Your task to perform on an android device: Add macbook to the cart on target.com Image 0: 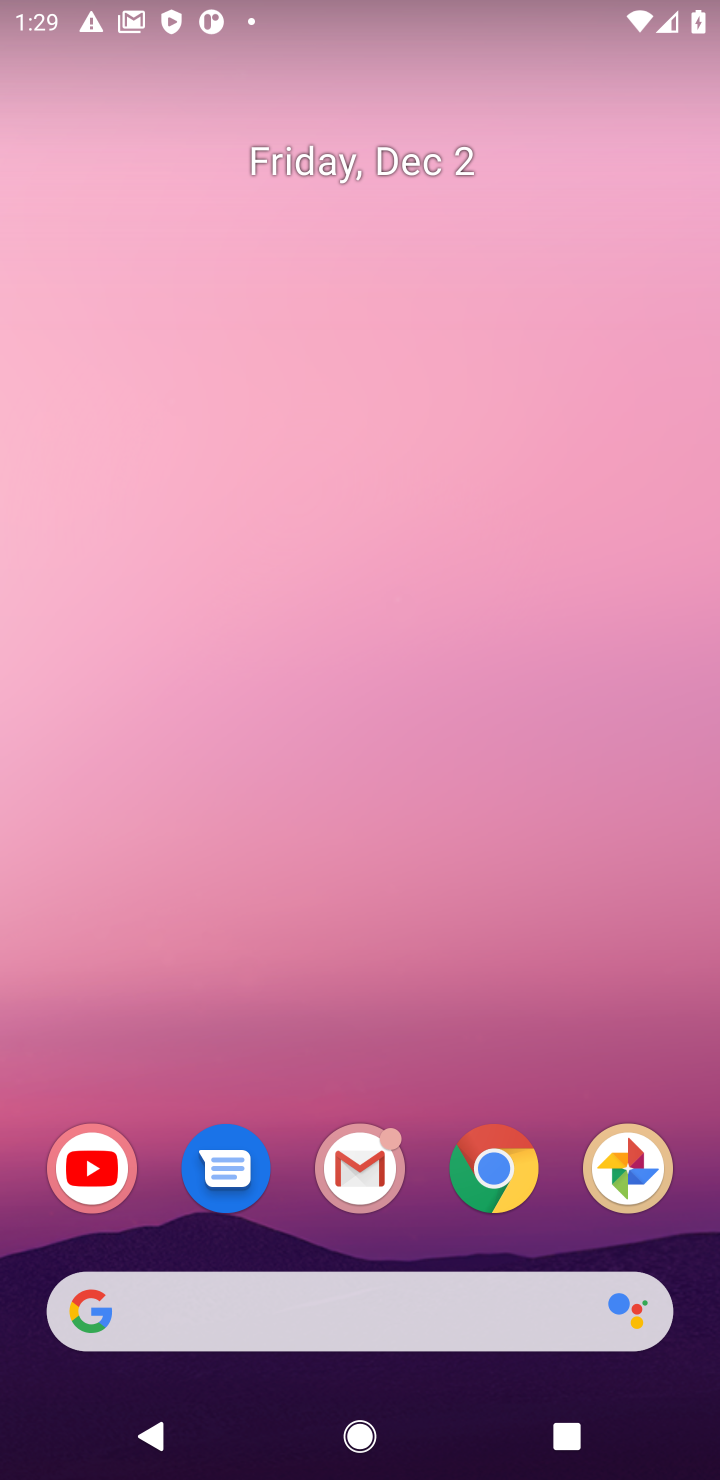
Step 0: click (499, 1180)
Your task to perform on an android device: Add macbook to the cart on target.com Image 1: 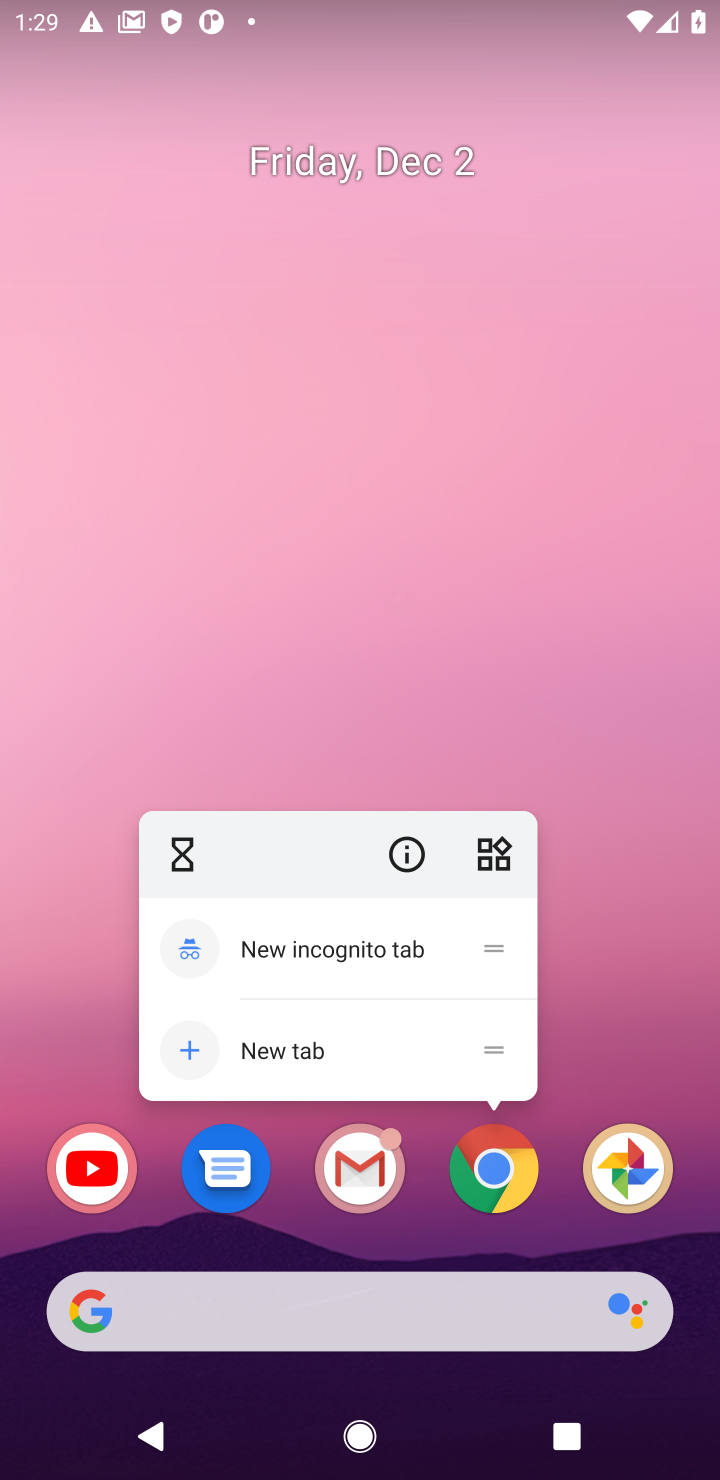
Step 1: click (499, 1180)
Your task to perform on an android device: Add macbook to the cart on target.com Image 2: 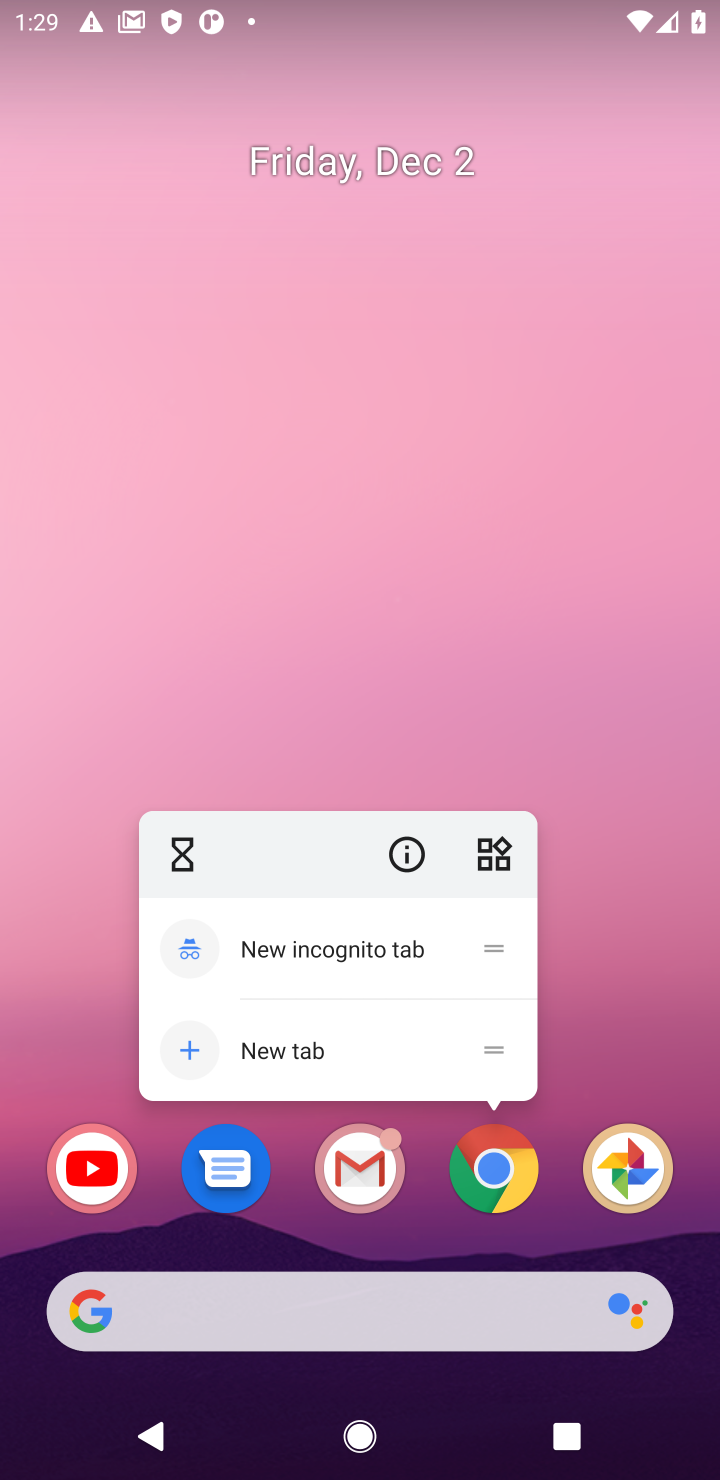
Step 2: click (499, 1180)
Your task to perform on an android device: Add macbook to the cart on target.com Image 3: 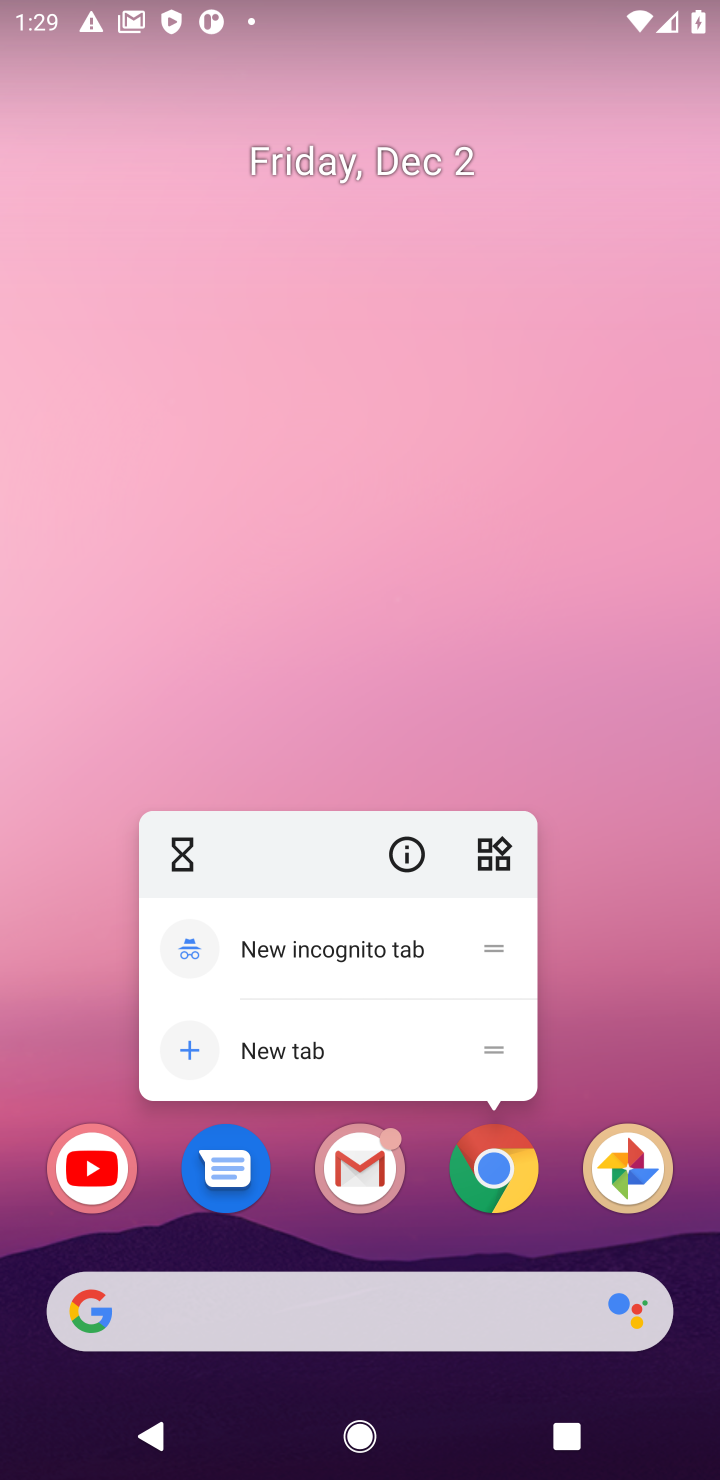
Step 3: click (662, 925)
Your task to perform on an android device: Add macbook to the cart on target.com Image 4: 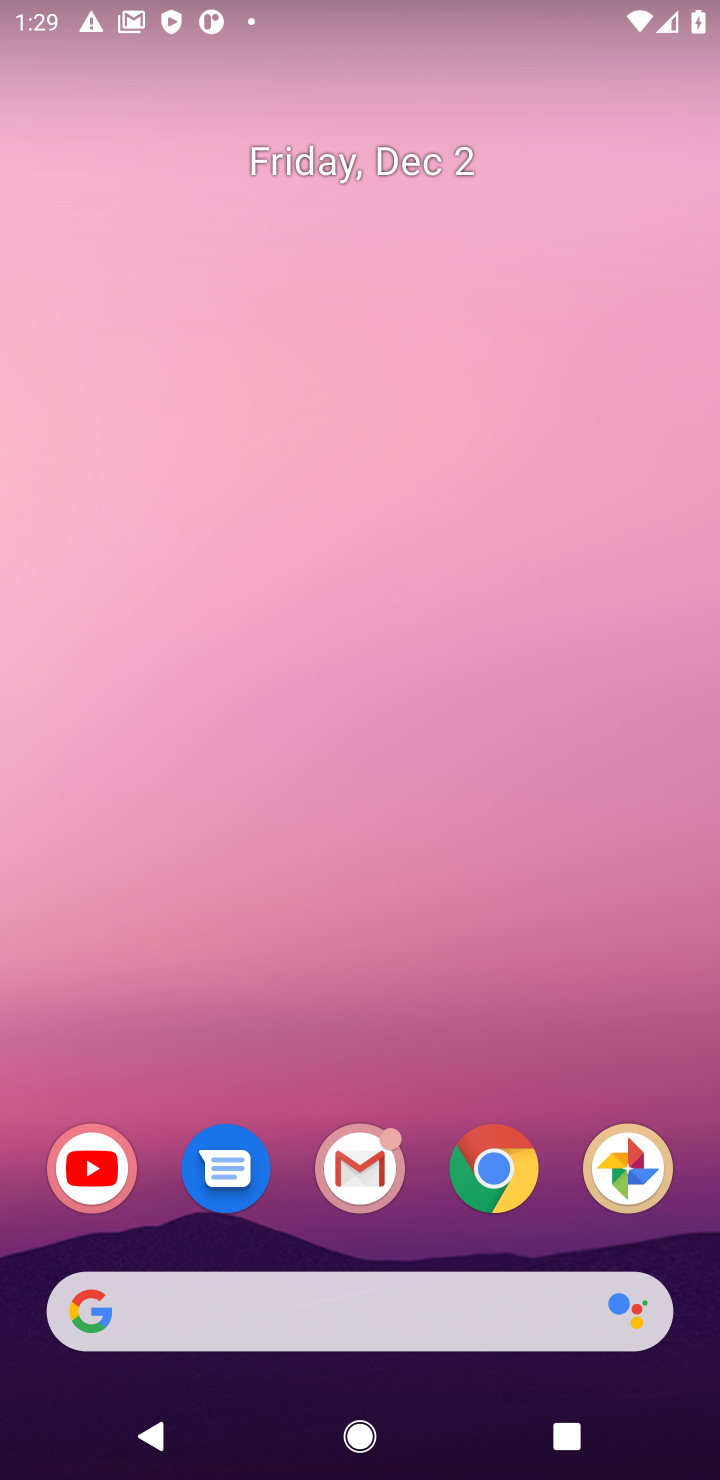
Step 4: click (495, 1176)
Your task to perform on an android device: Add macbook to the cart on target.com Image 5: 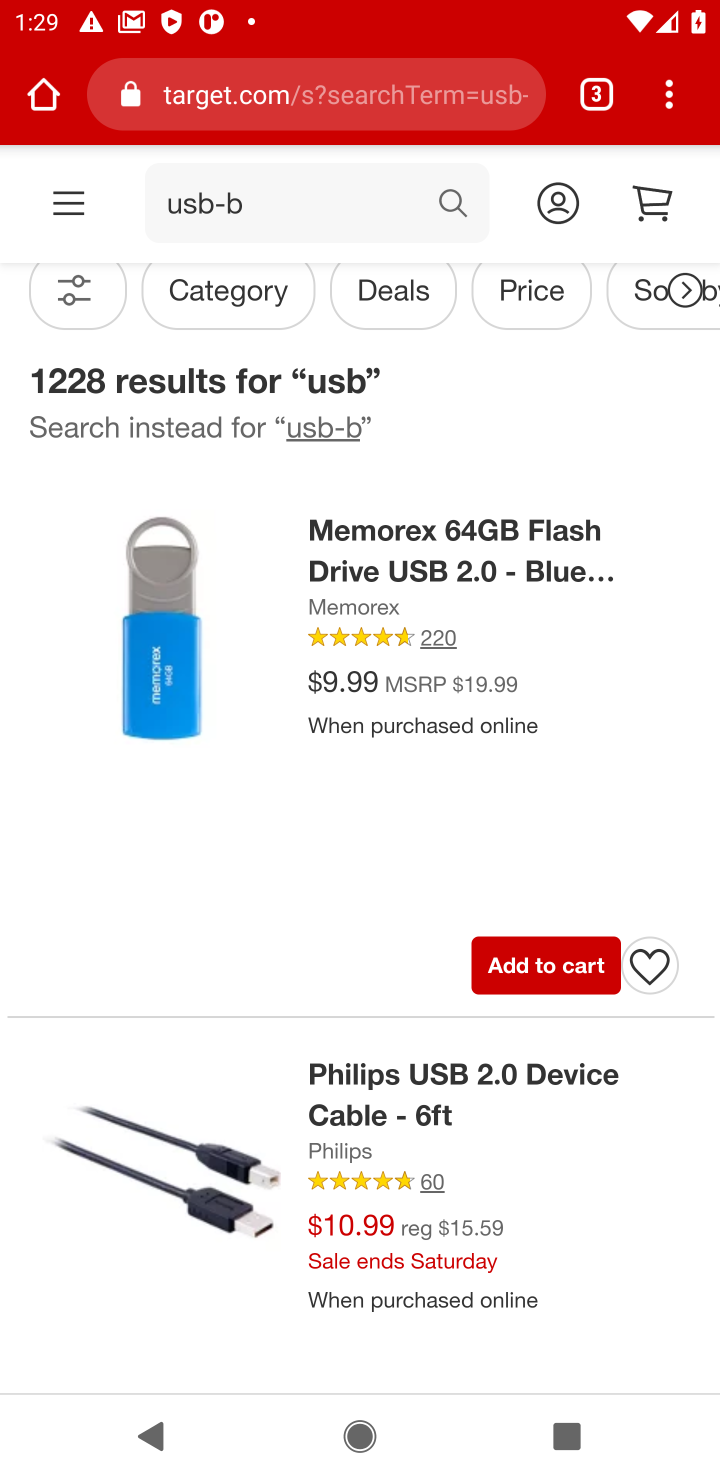
Step 5: click (267, 198)
Your task to perform on an android device: Add macbook to the cart on target.com Image 6: 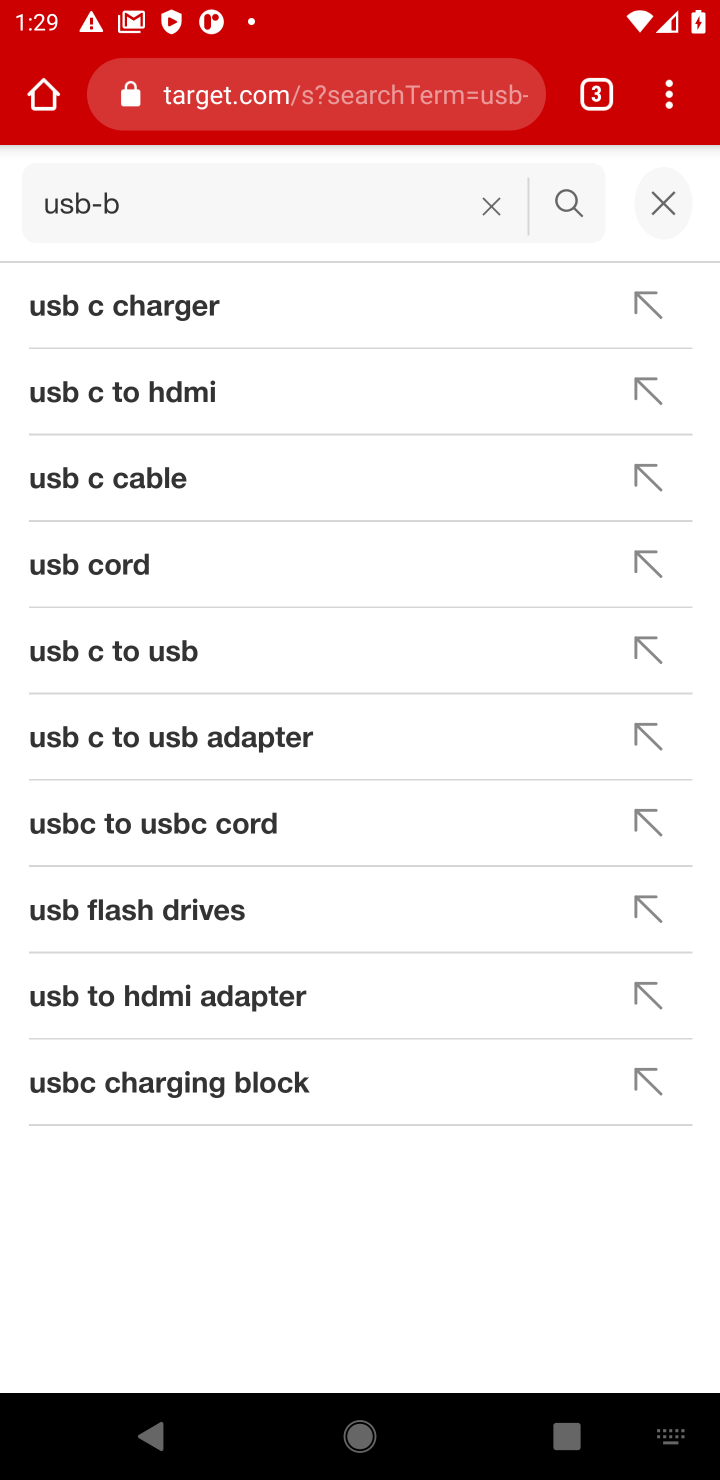
Step 6: click (493, 195)
Your task to perform on an android device: Add macbook to the cart on target.com Image 7: 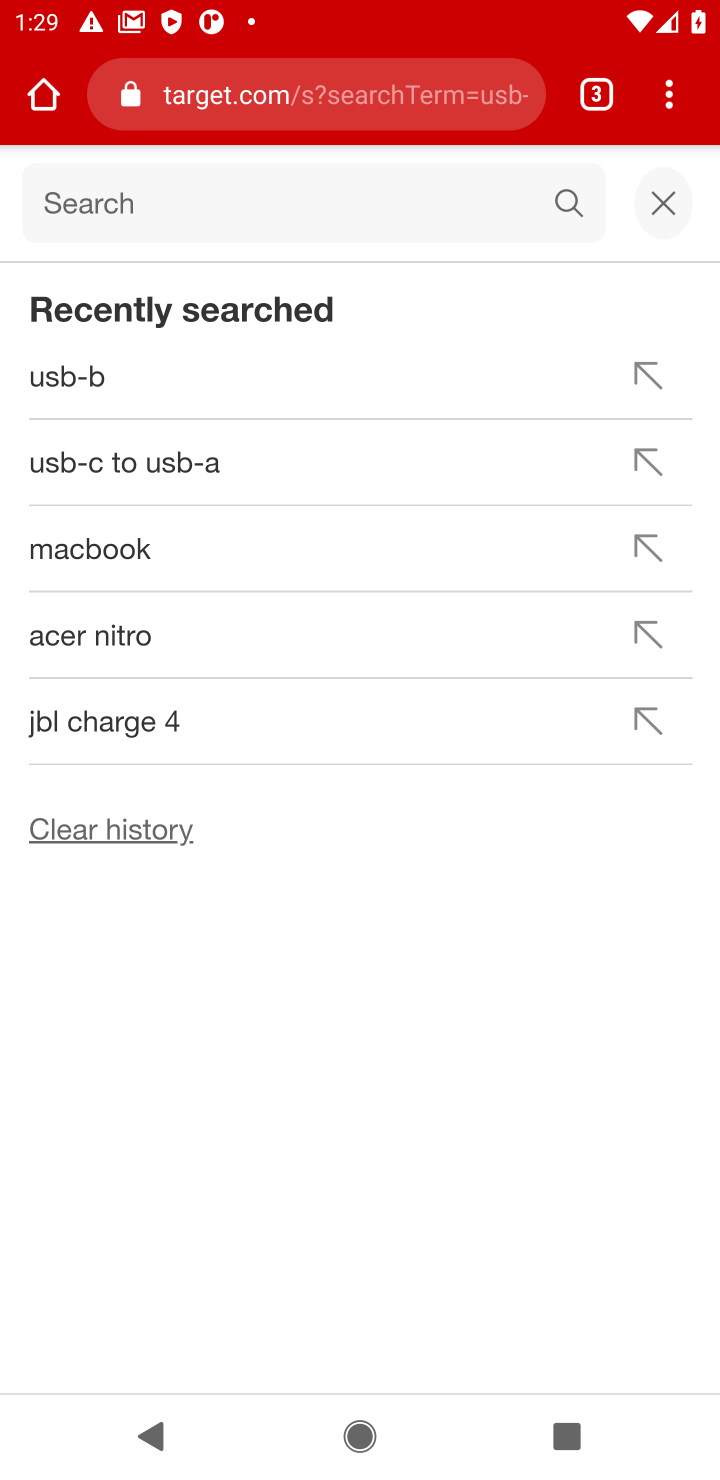
Step 7: click (137, 195)
Your task to perform on an android device: Add macbook to the cart on target.com Image 8: 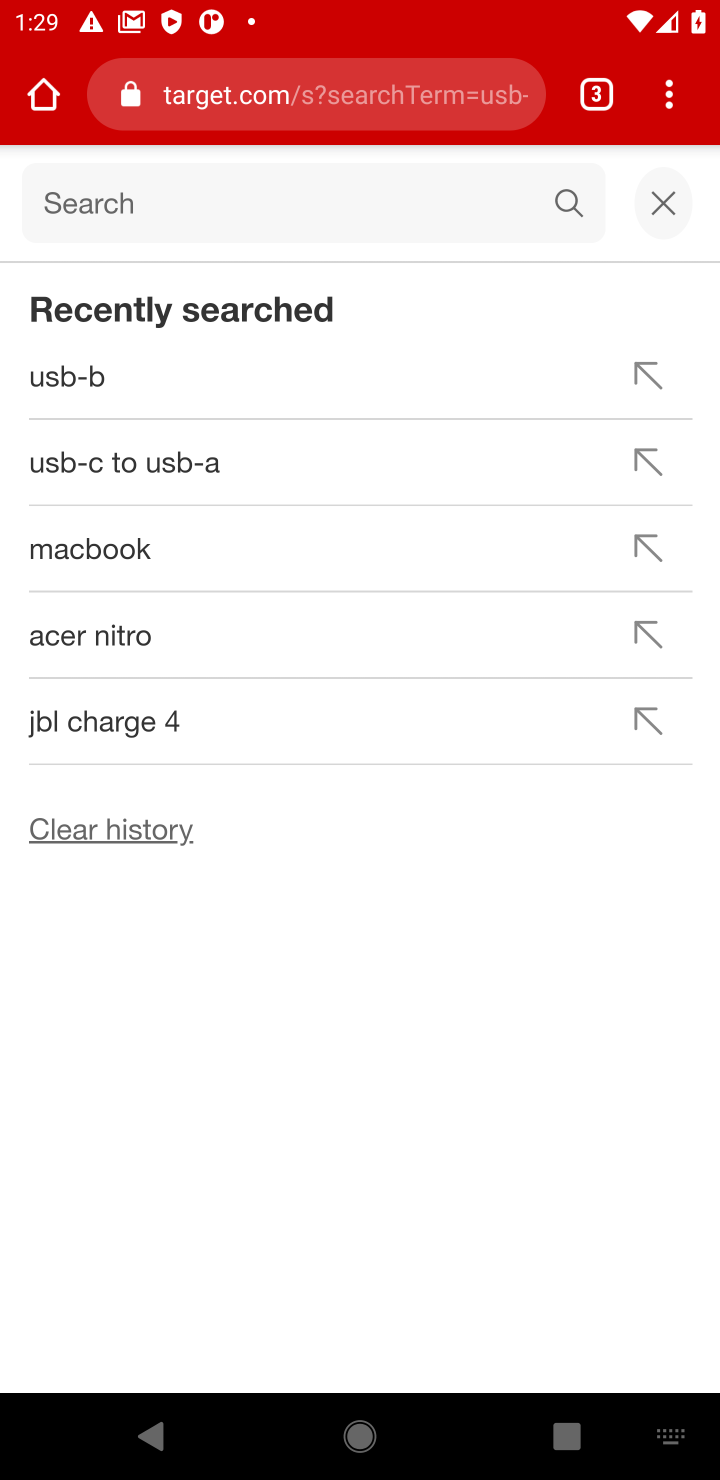
Step 8: type "macbook"
Your task to perform on an android device: Add macbook to the cart on target.com Image 9: 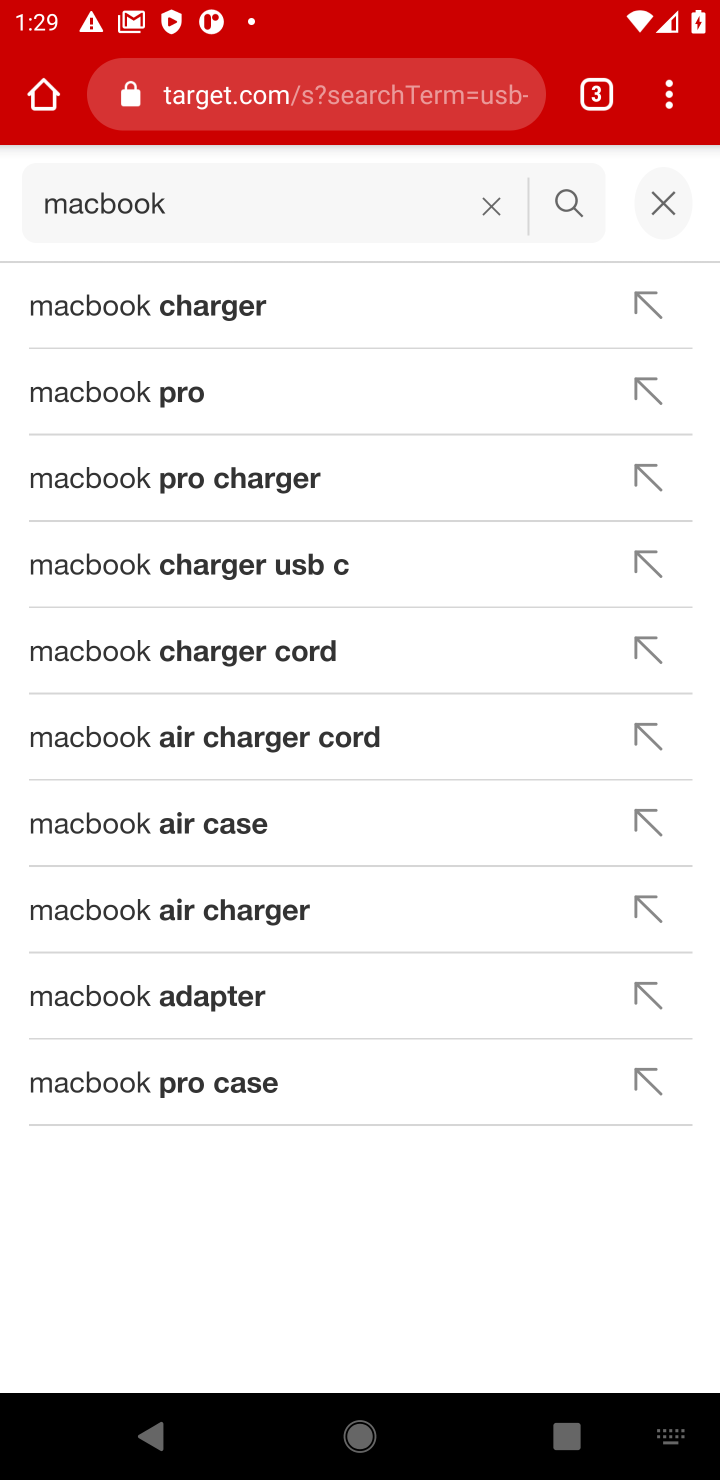
Step 9: click (573, 188)
Your task to perform on an android device: Add macbook to the cart on target.com Image 10: 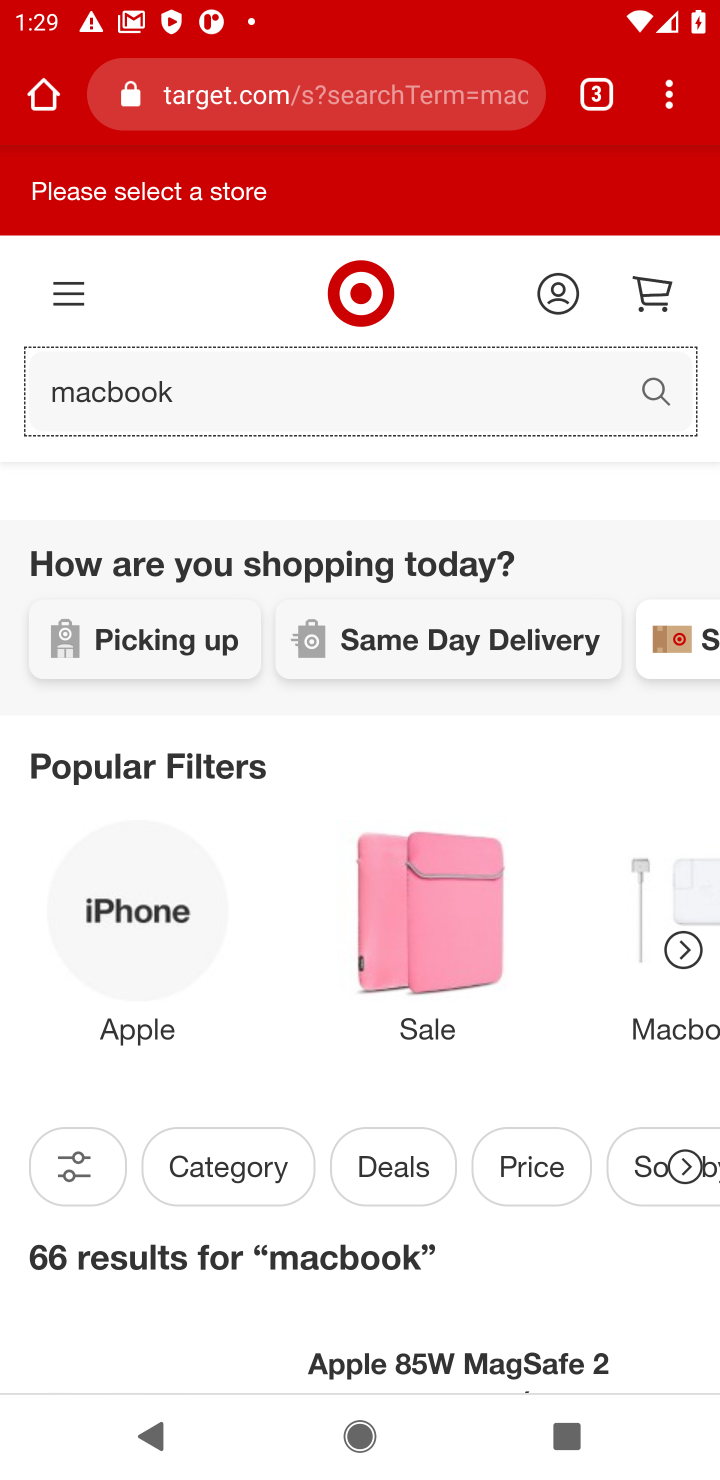
Step 10: drag from (232, 859) to (247, 321)
Your task to perform on an android device: Add macbook to the cart on target.com Image 11: 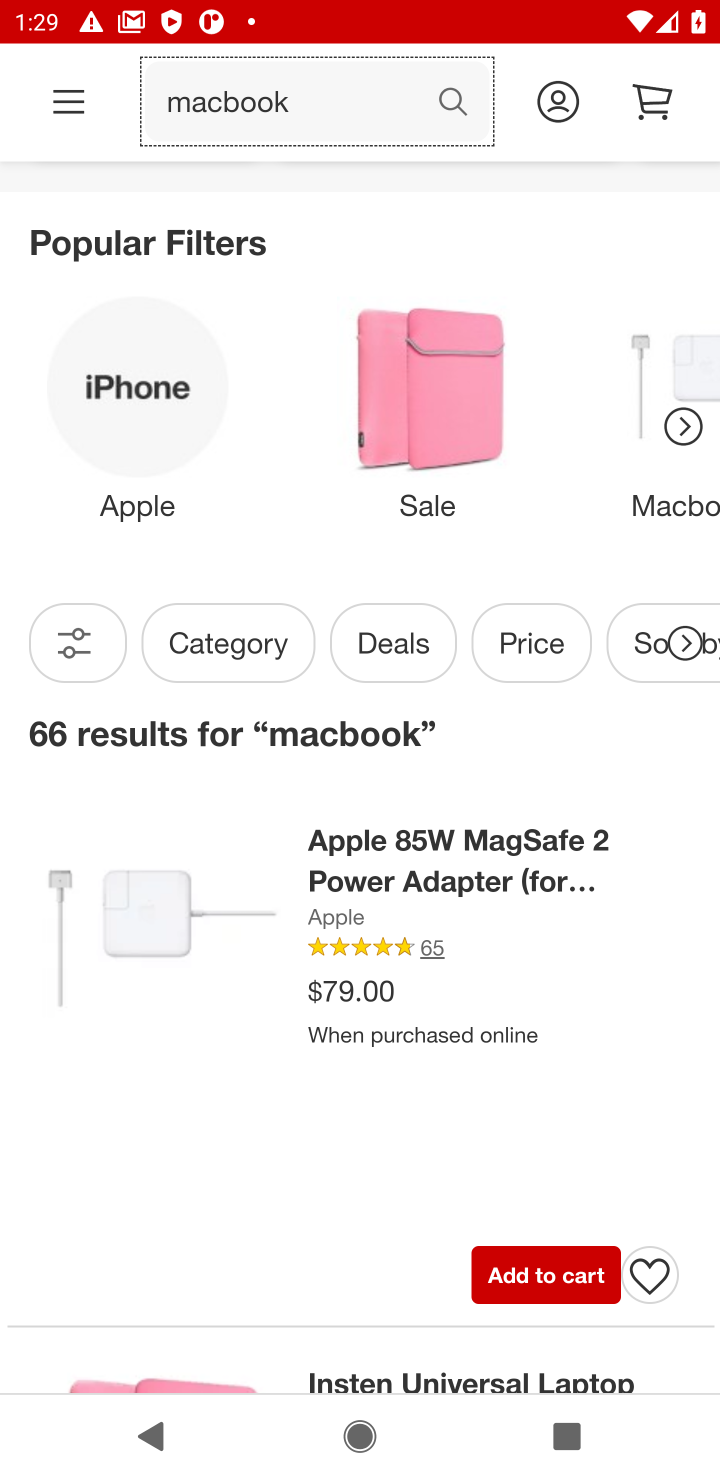
Step 11: click (409, 875)
Your task to perform on an android device: Add macbook to the cart on target.com Image 12: 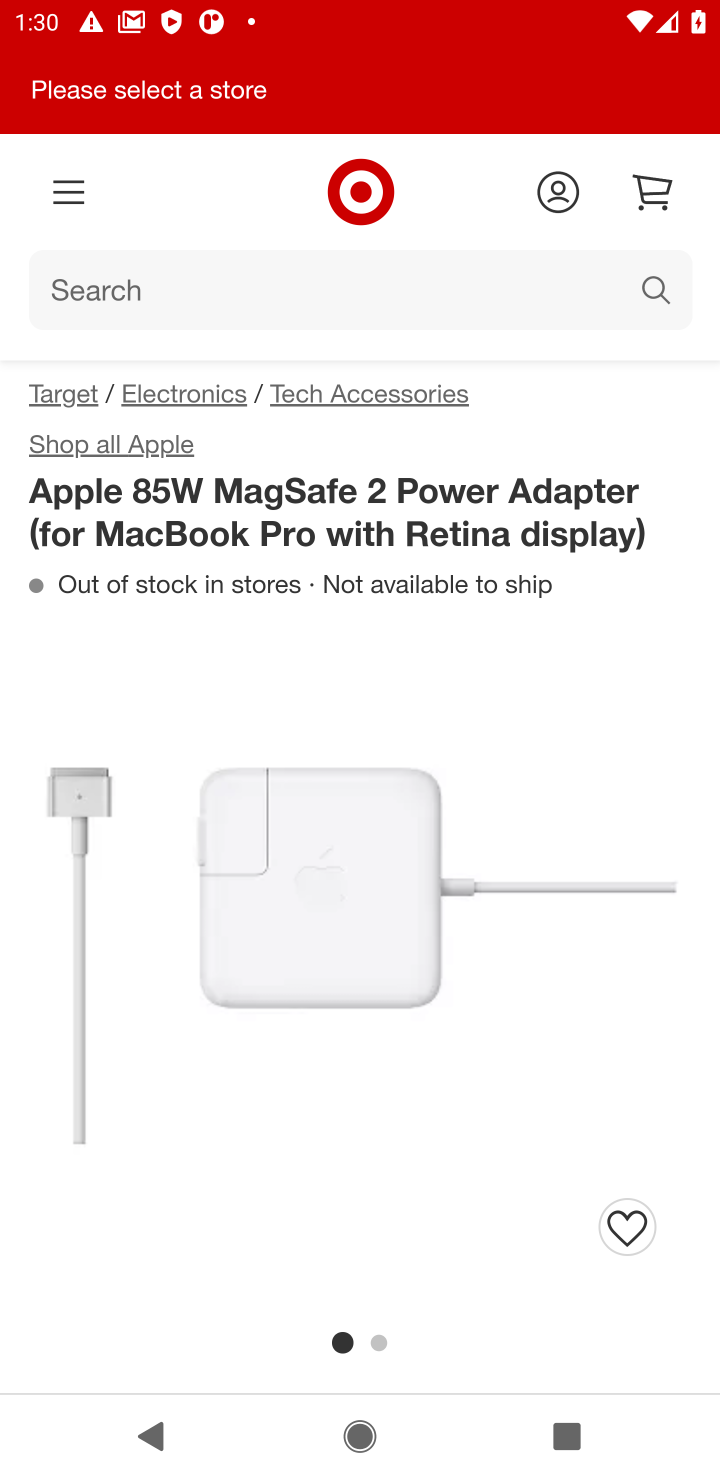
Step 12: drag from (339, 982) to (329, 569)
Your task to perform on an android device: Add macbook to the cart on target.com Image 13: 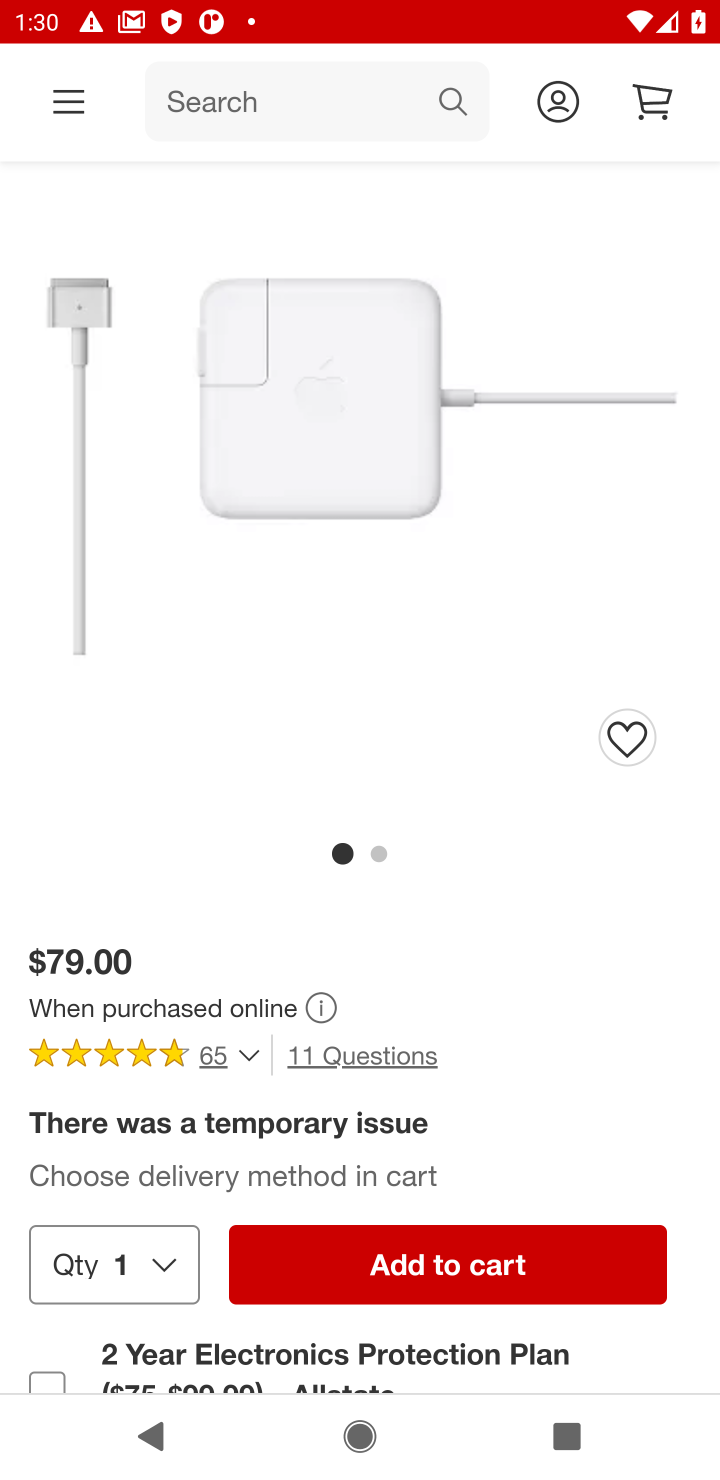
Step 13: click (451, 1267)
Your task to perform on an android device: Add macbook to the cart on target.com Image 14: 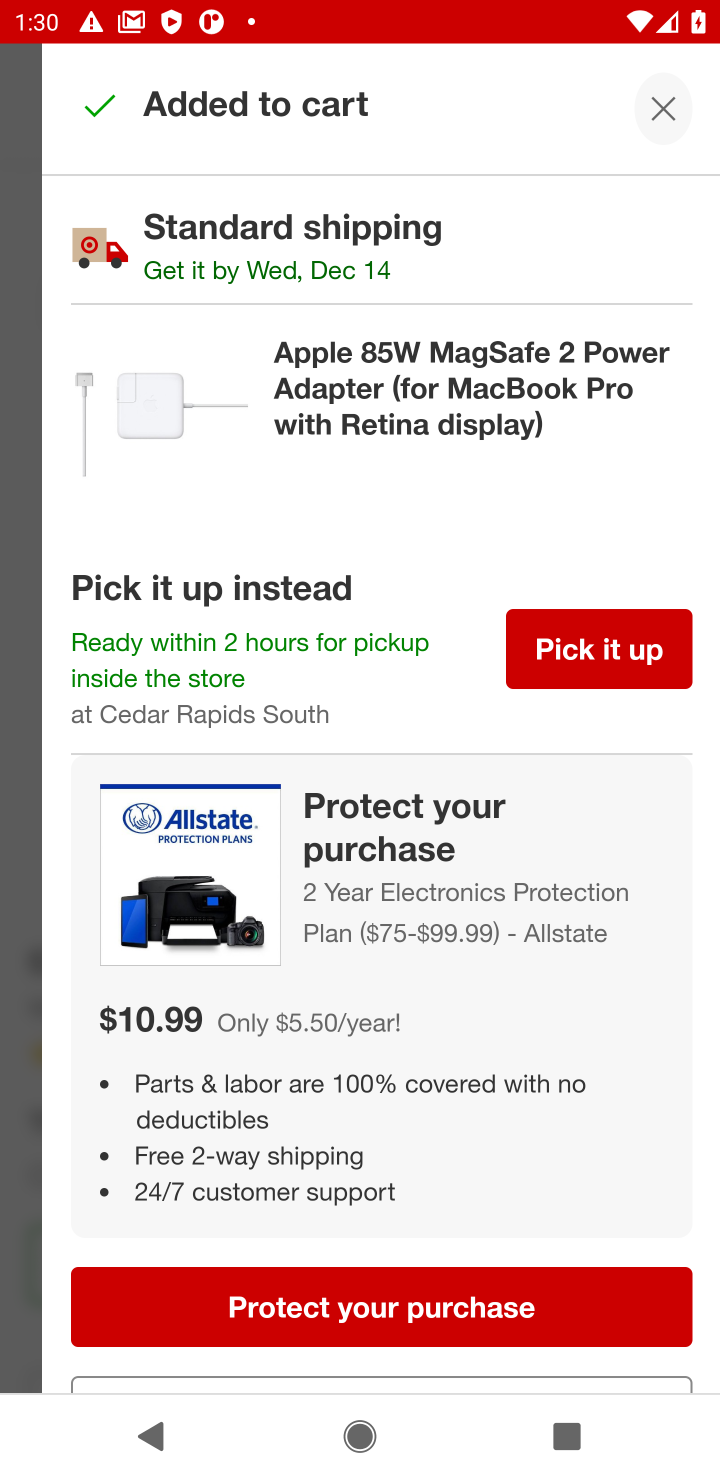
Step 14: task complete